Your task to perform on an android device: turn off translation in the chrome app Image 0: 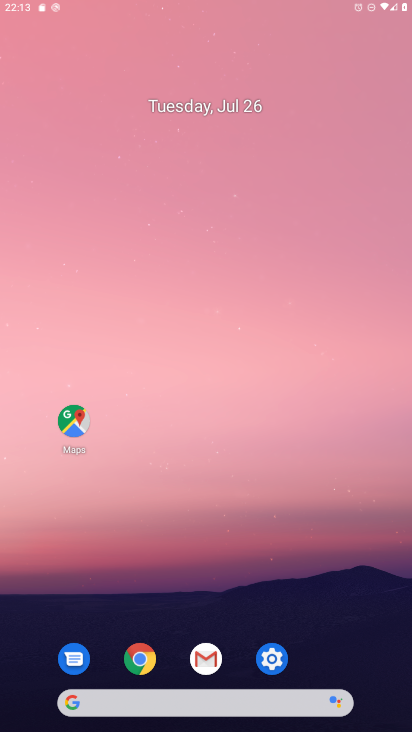
Step 0: click (185, 422)
Your task to perform on an android device: turn off translation in the chrome app Image 1: 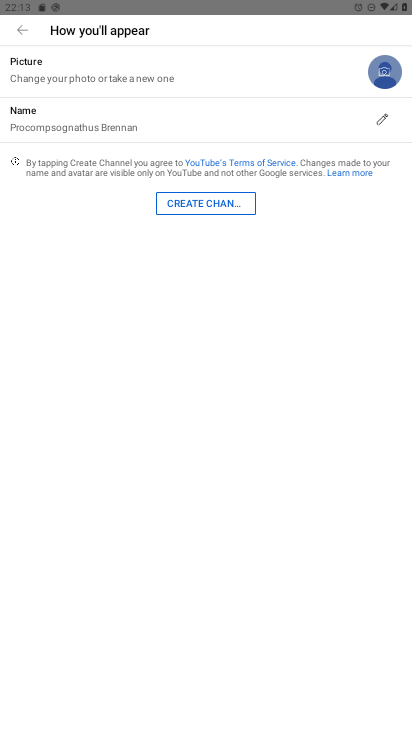
Step 1: press home button
Your task to perform on an android device: turn off translation in the chrome app Image 2: 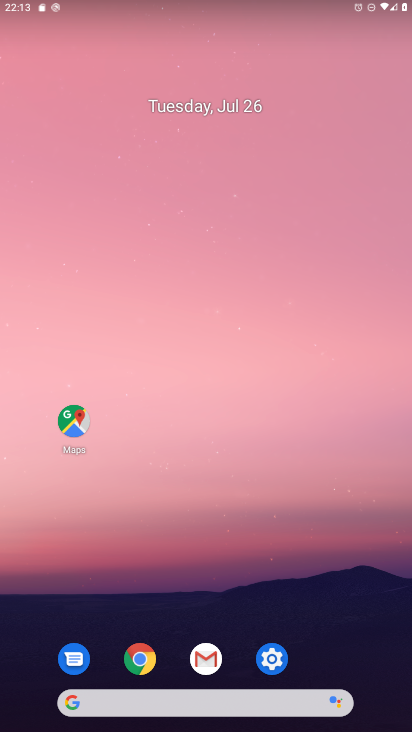
Step 2: click (147, 661)
Your task to perform on an android device: turn off translation in the chrome app Image 3: 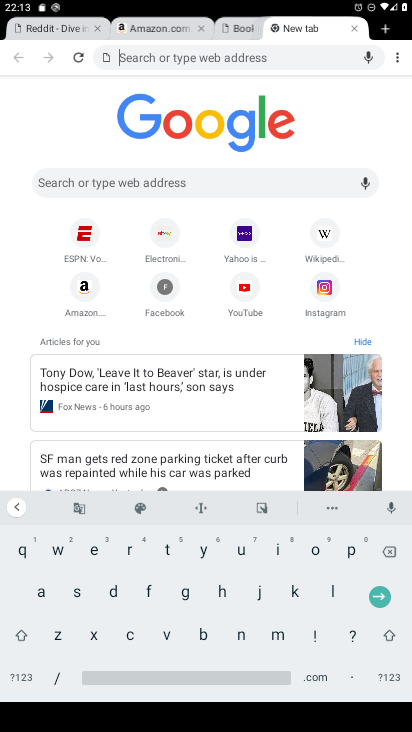
Step 3: click (397, 62)
Your task to perform on an android device: turn off translation in the chrome app Image 4: 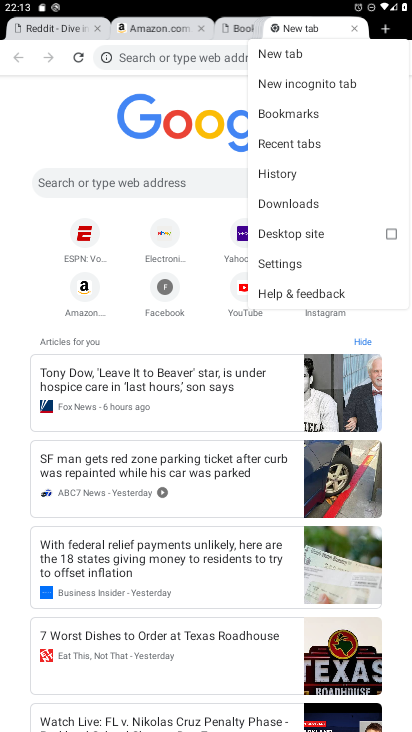
Step 4: click (283, 265)
Your task to perform on an android device: turn off translation in the chrome app Image 5: 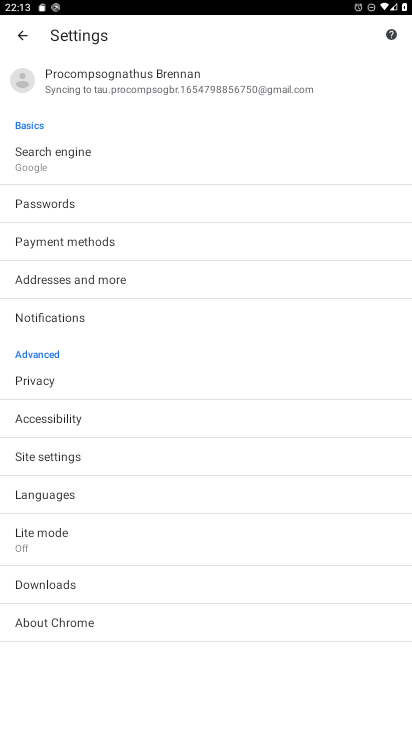
Step 5: click (79, 494)
Your task to perform on an android device: turn off translation in the chrome app Image 6: 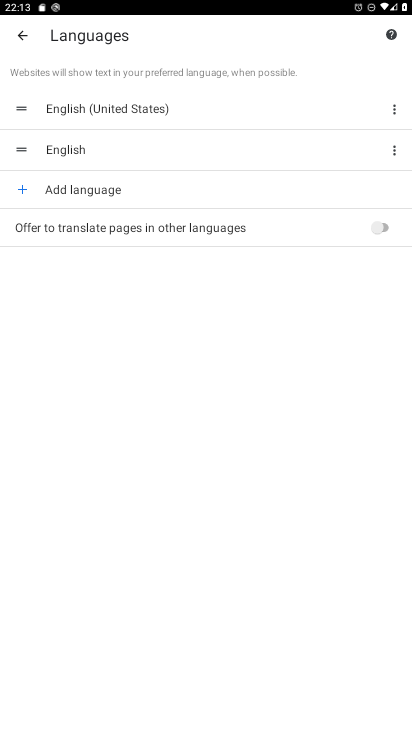
Step 6: click (328, 235)
Your task to perform on an android device: turn off translation in the chrome app Image 7: 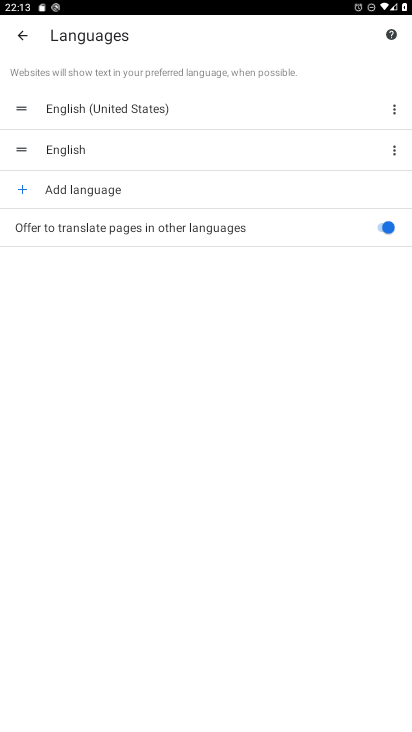
Step 7: click (328, 235)
Your task to perform on an android device: turn off translation in the chrome app Image 8: 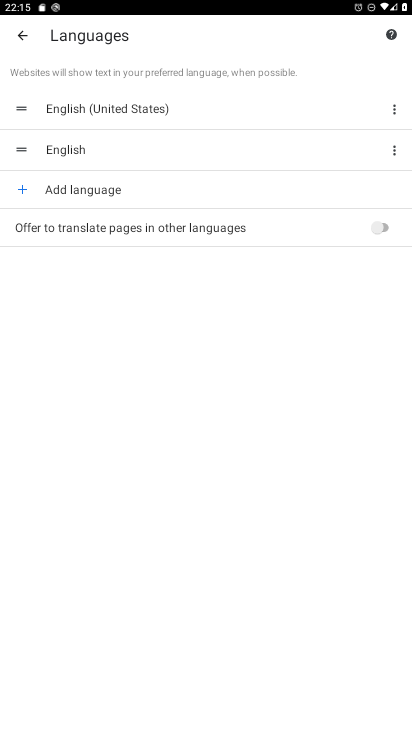
Step 8: task complete